Your task to perform on an android device: Open Chrome and go to the settings page Image 0: 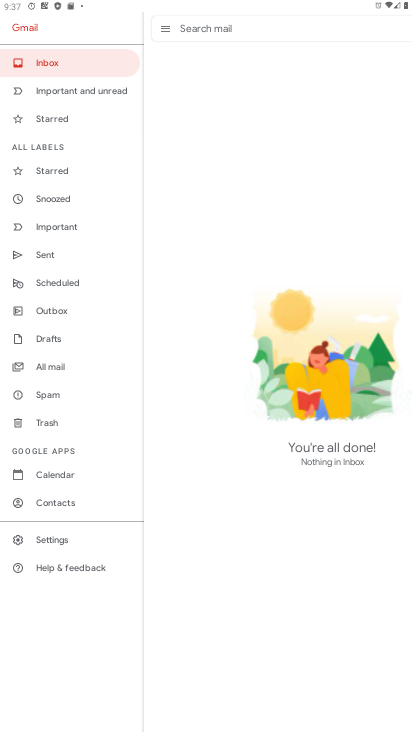
Step 0: press home button
Your task to perform on an android device: Open Chrome and go to the settings page Image 1: 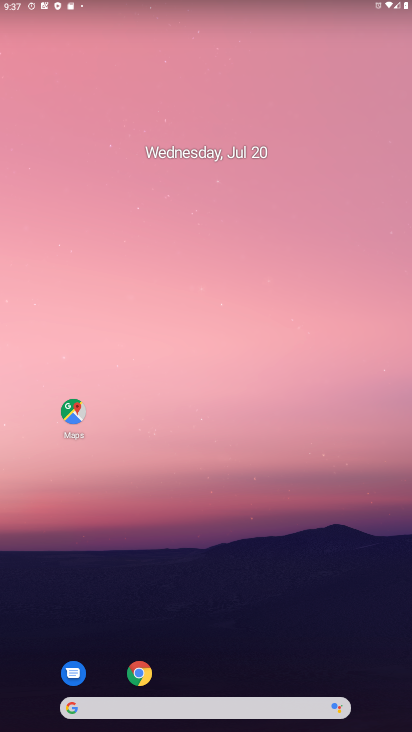
Step 1: click (138, 675)
Your task to perform on an android device: Open Chrome and go to the settings page Image 2: 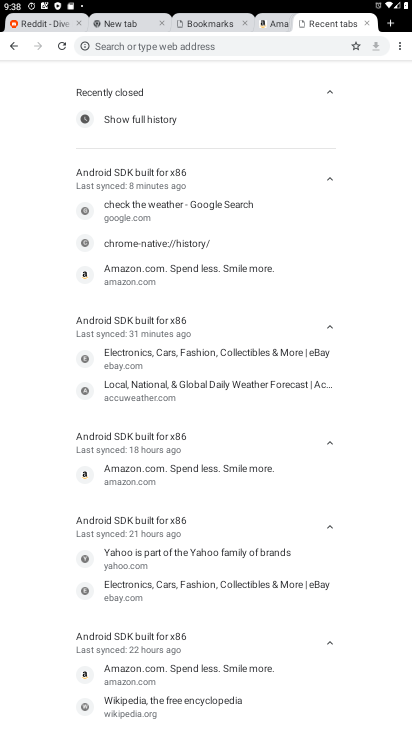
Step 2: click (402, 46)
Your task to perform on an android device: Open Chrome and go to the settings page Image 3: 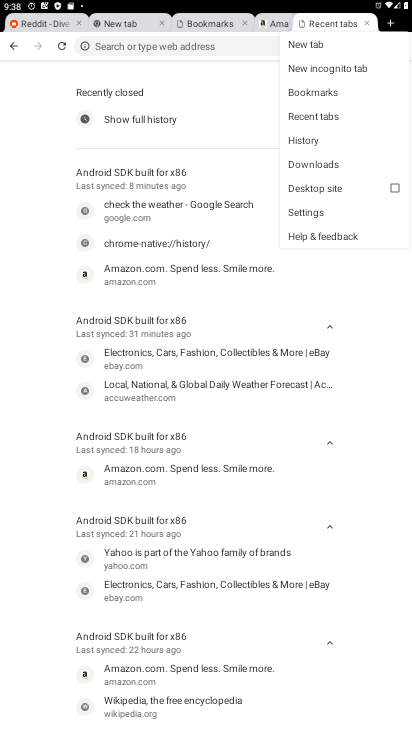
Step 3: click (305, 206)
Your task to perform on an android device: Open Chrome and go to the settings page Image 4: 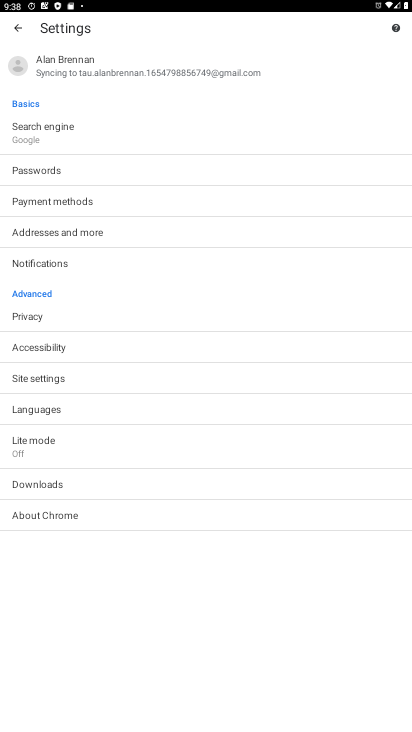
Step 4: task complete